Your task to perform on an android device: Open Amazon Image 0: 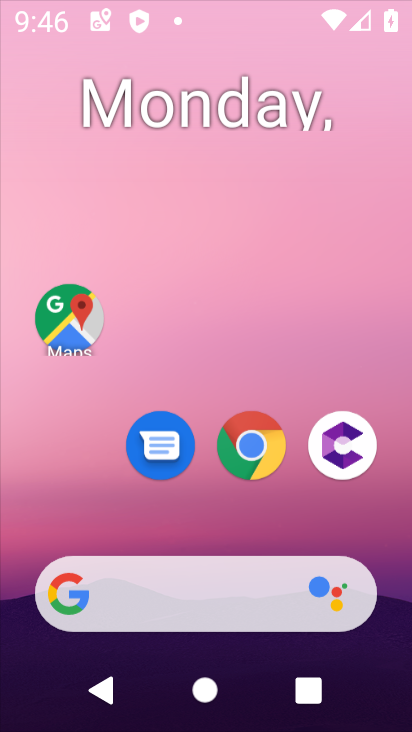
Step 0: press home button
Your task to perform on an android device: Open Amazon Image 1: 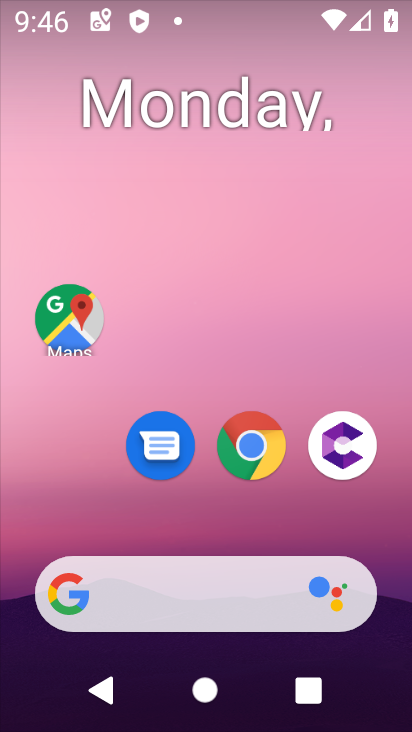
Step 1: click (52, 600)
Your task to perform on an android device: Open Amazon Image 2: 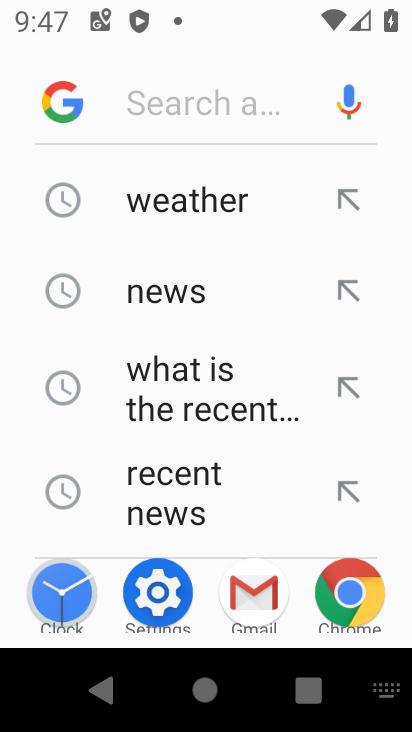
Step 2: type "Amazon"
Your task to perform on an android device: Open Amazon Image 3: 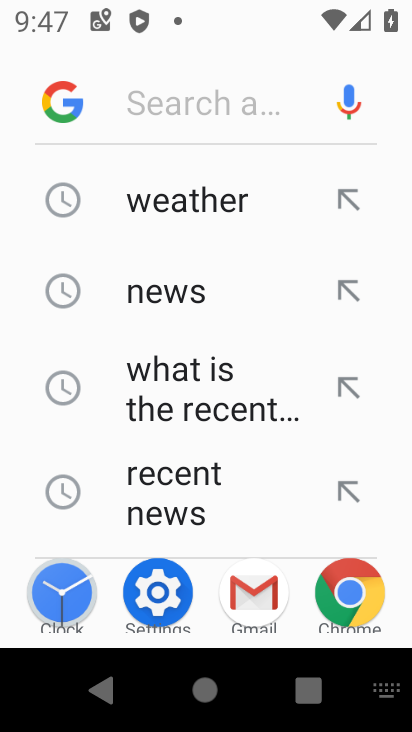
Step 3: click (205, 110)
Your task to perform on an android device: Open Amazon Image 4: 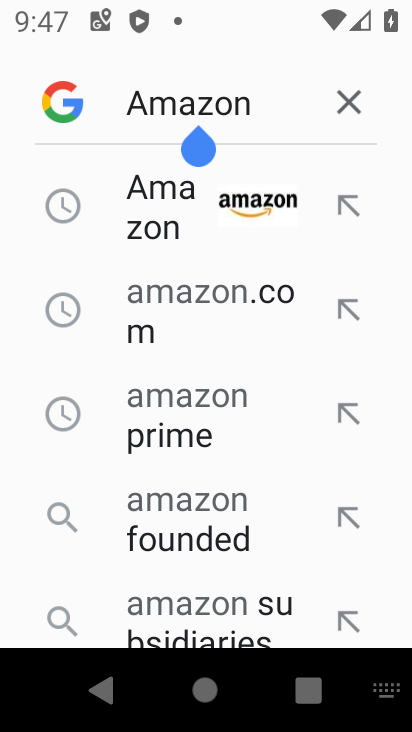
Step 4: click (169, 189)
Your task to perform on an android device: Open Amazon Image 5: 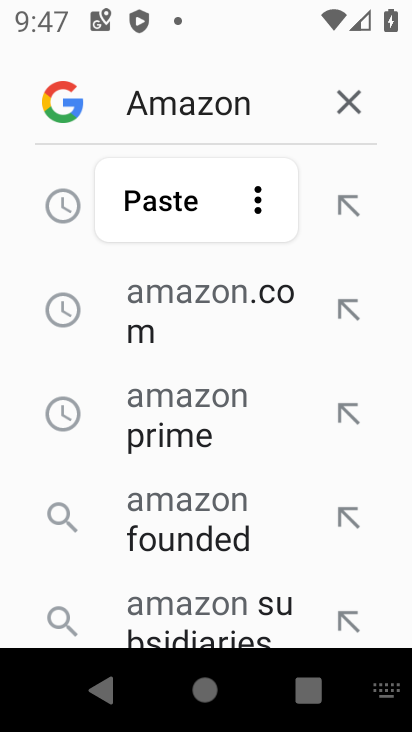
Step 5: click (265, 97)
Your task to perform on an android device: Open Amazon Image 6: 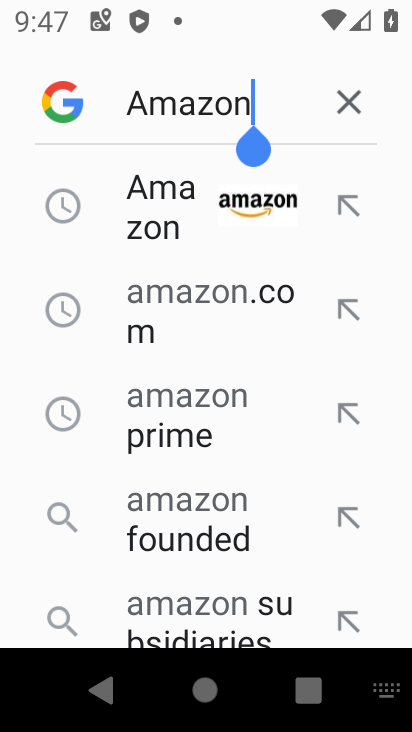
Step 6: click (155, 189)
Your task to perform on an android device: Open Amazon Image 7: 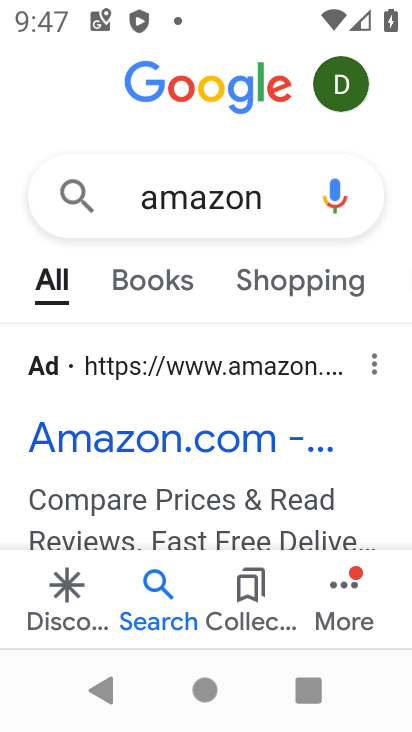
Step 7: click (166, 444)
Your task to perform on an android device: Open Amazon Image 8: 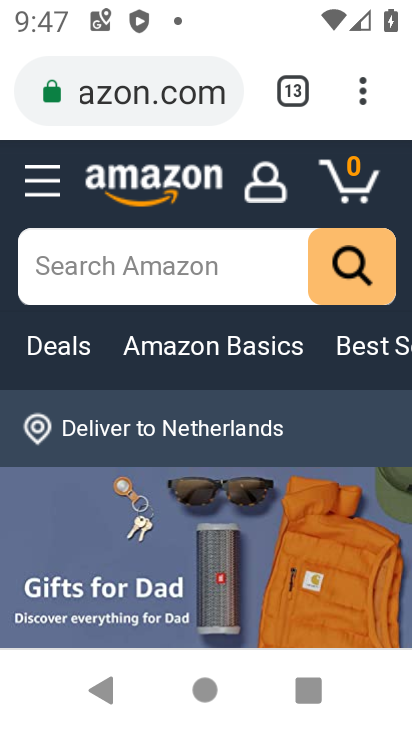
Step 8: task complete